Your task to perform on an android device: Open the Play Movies app and select the watchlist tab. Image 0: 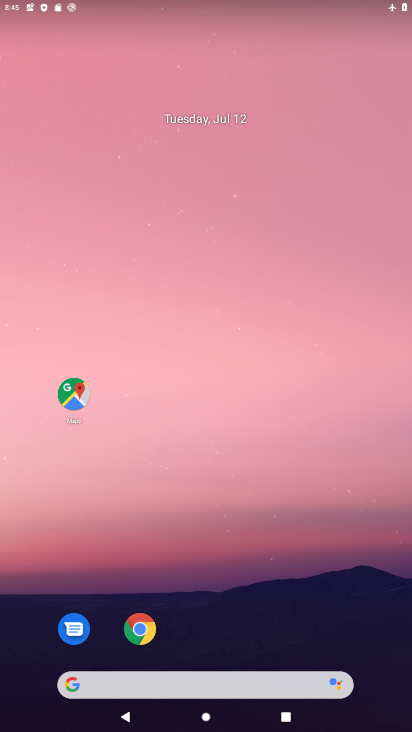
Step 0: drag from (311, 629) to (200, 64)
Your task to perform on an android device: Open the Play Movies app and select the watchlist tab. Image 1: 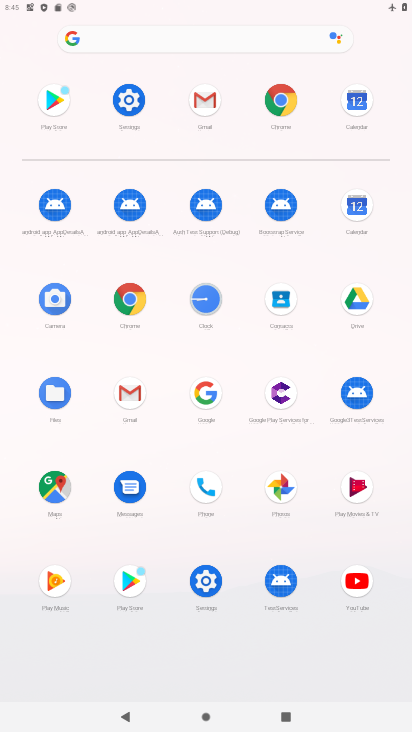
Step 1: click (343, 481)
Your task to perform on an android device: Open the Play Movies app and select the watchlist tab. Image 2: 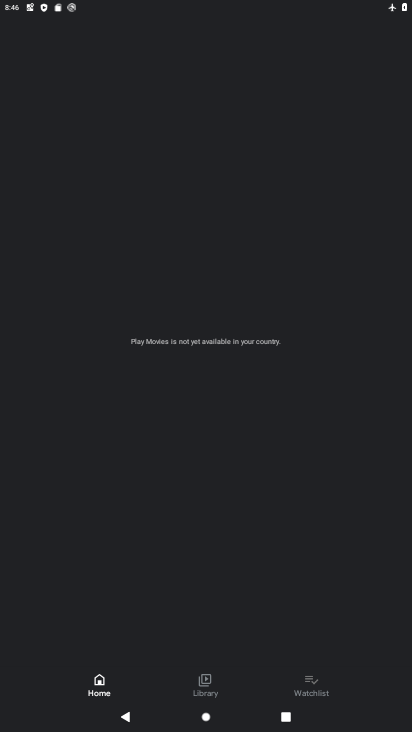
Step 2: click (307, 673)
Your task to perform on an android device: Open the Play Movies app and select the watchlist tab. Image 3: 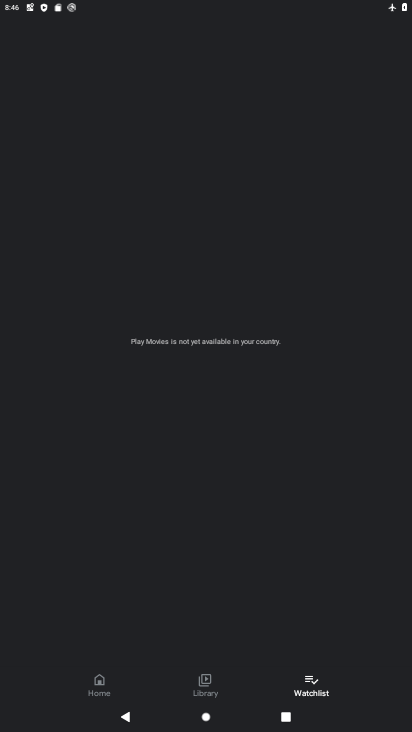
Step 3: task complete